Your task to perform on an android device: Open battery settings Image 0: 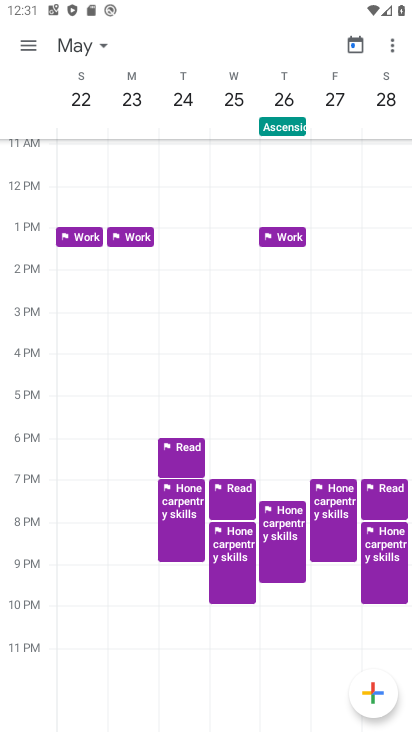
Step 0: press home button
Your task to perform on an android device: Open battery settings Image 1: 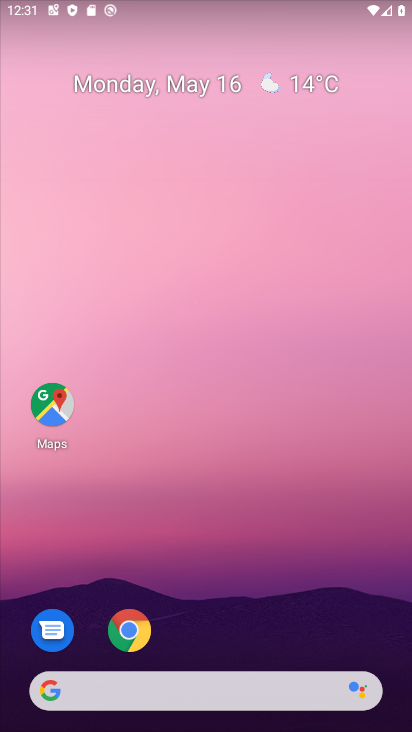
Step 1: drag from (245, 571) to (249, 20)
Your task to perform on an android device: Open battery settings Image 2: 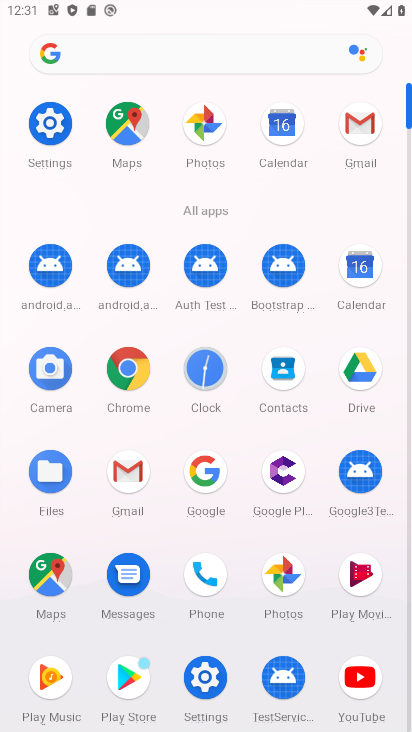
Step 2: click (28, 111)
Your task to perform on an android device: Open battery settings Image 3: 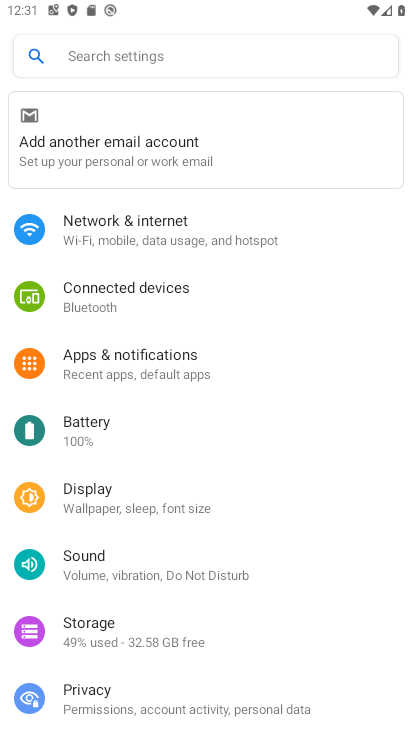
Step 3: click (106, 442)
Your task to perform on an android device: Open battery settings Image 4: 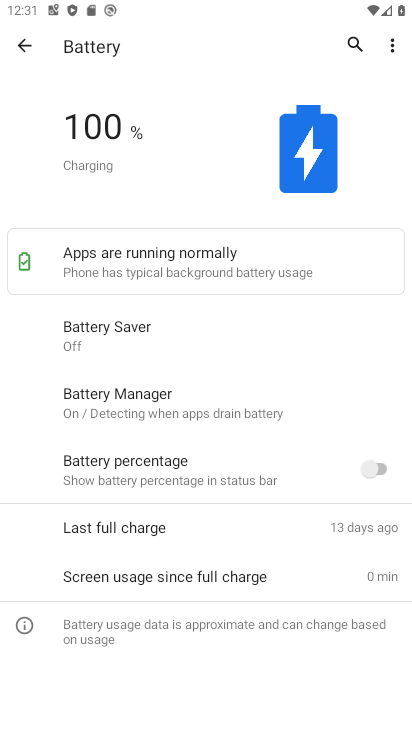
Step 4: task complete